Your task to perform on an android device: Open the stopwatch Image 0: 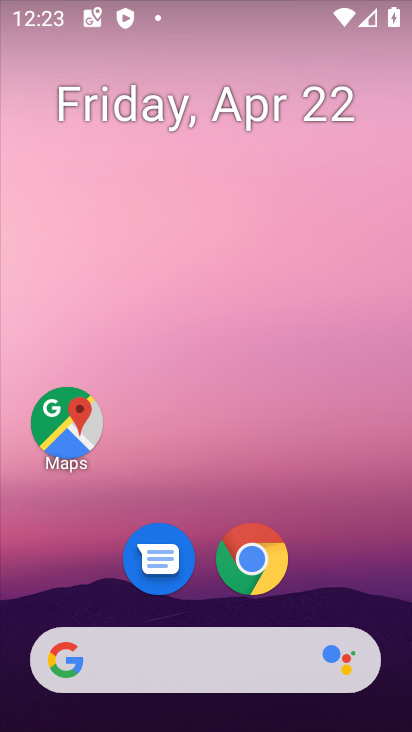
Step 0: drag from (368, 601) to (262, 47)
Your task to perform on an android device: Open the stopwatch Image 1: 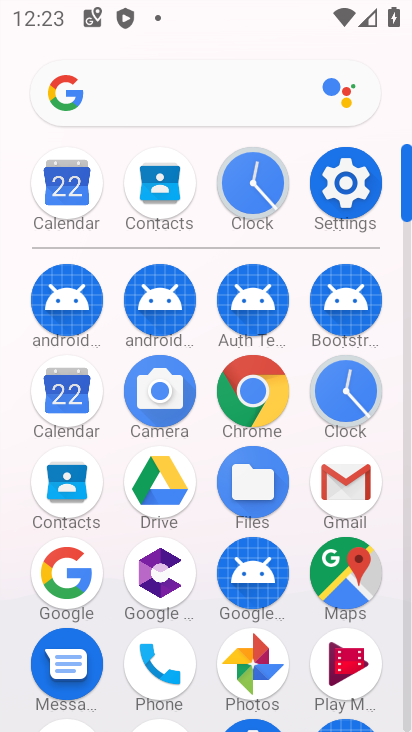
Step 1: click (240, 178)
Your task to perform on an android device: Open the stopwatch Image 2: 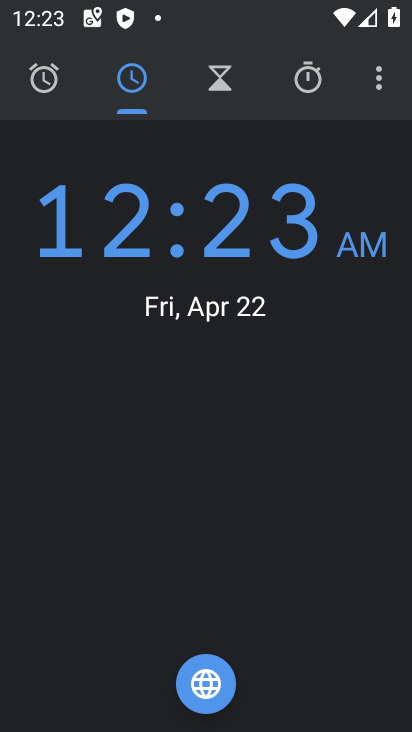
Step 2: click (311, 72)
Your task to perform on an android device: Open the stopwatch Image 3: 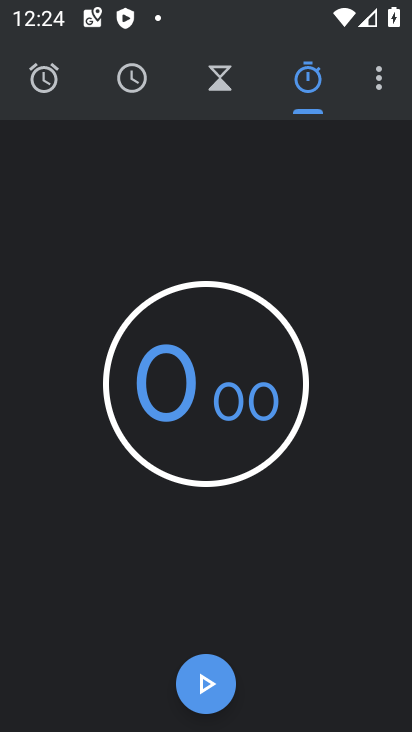
Step 3: task complete